Your task to perform on an android device: check android version Image 0: 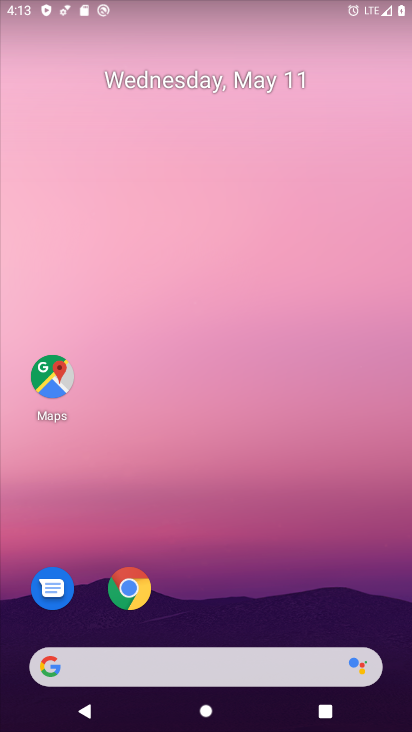
Step 0: drag from (273, 593) to (249, 206)
Your task to perform on an android device: check android version Image 1: 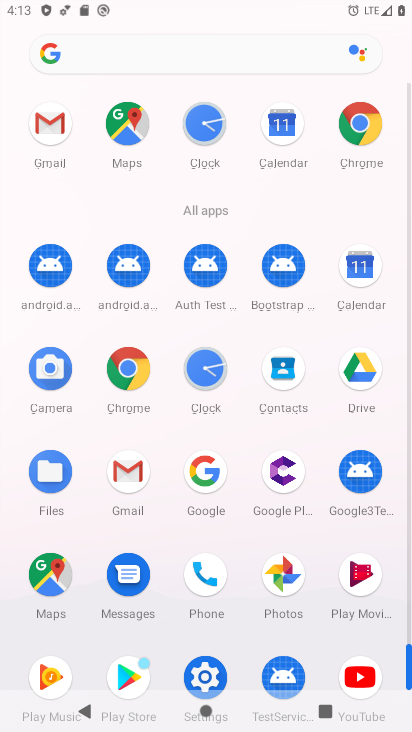
Step 1: drag from (391, 547) to (348, 271)
Your task to perform on an android device: check android version Image 2: 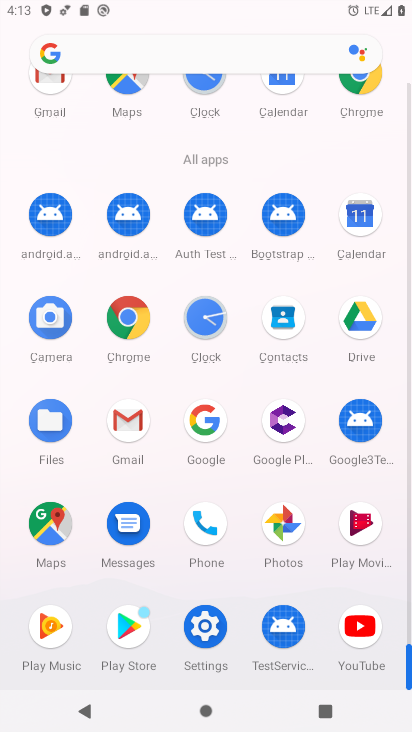
Step 2: click (211, 626)
Your task to perform on an android device: check android version Image 3: 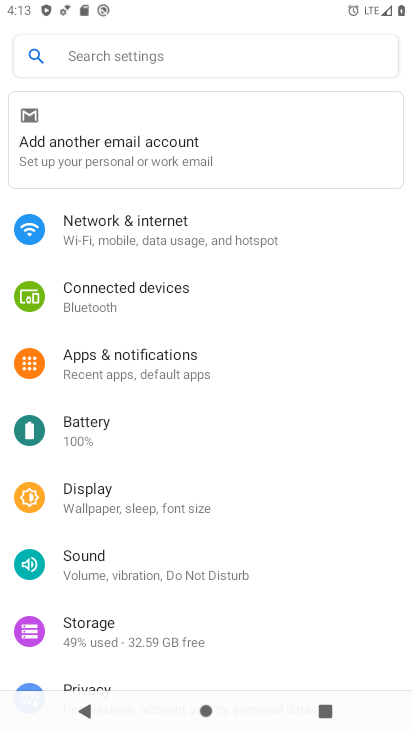
Step 3: drag from (203, 622) to (190, 155)
Your task to perform on an android device: check android version Image 4: 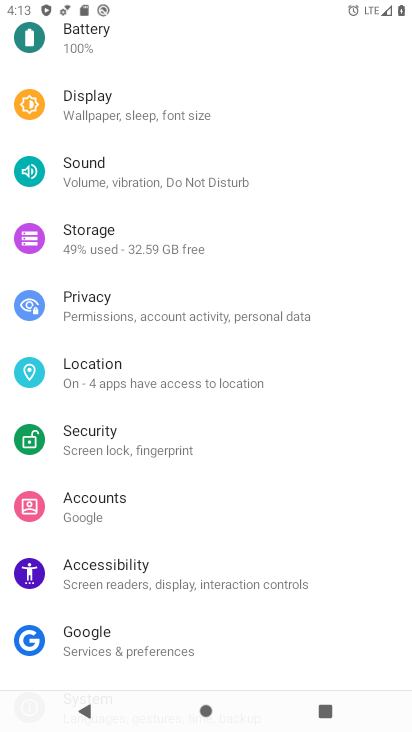
Step 4: drag from (190, 549) to (192, 302)
Your task to perform on an android device: check android version Image 5: 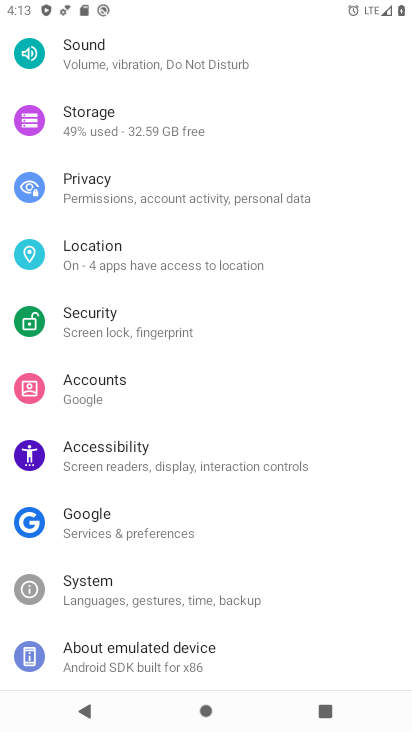
Step 5: click (136, 651)
Your task to perform on an android device: check android version Image 6: 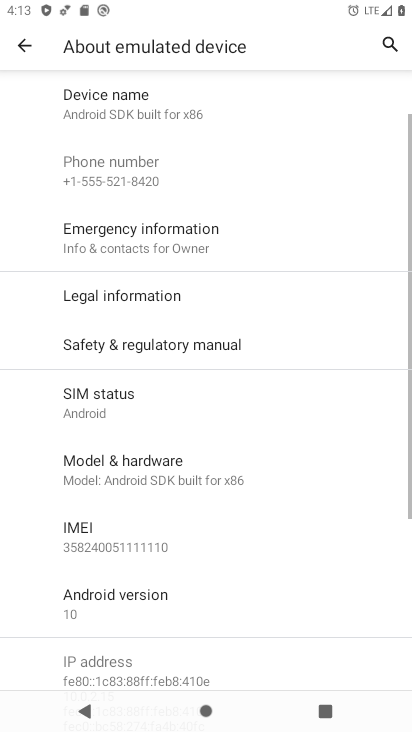
Step 6: click (124, 624)
Your task to perform on an android device: check android version Image 7: 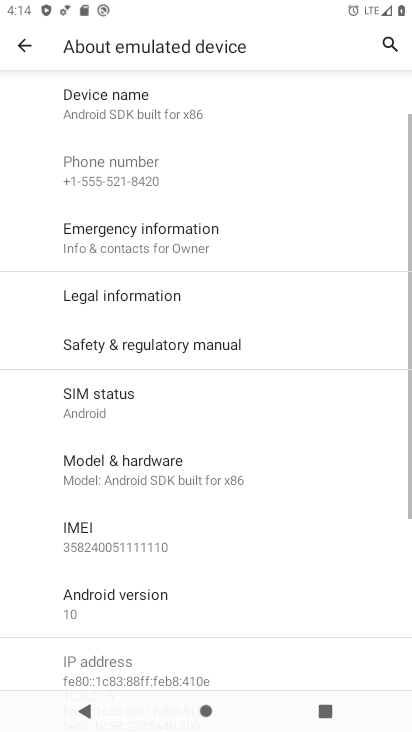
Step 7: click (117, 616)
Your task to perform on an android device: check android version Image 8: 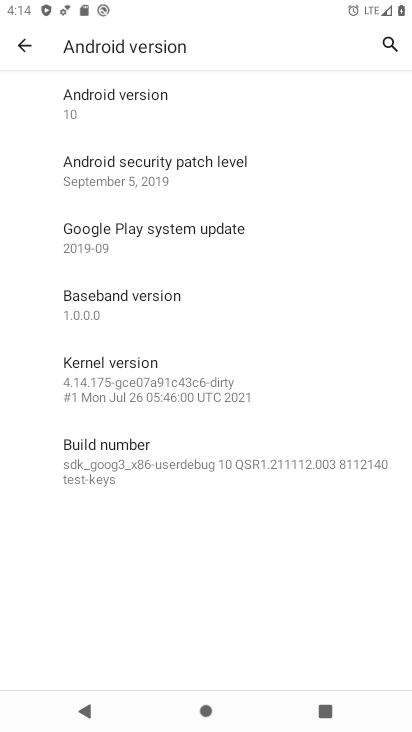
Step 8: task complete